Your task to perform on an android device: open app "Google Maps" Image 0: 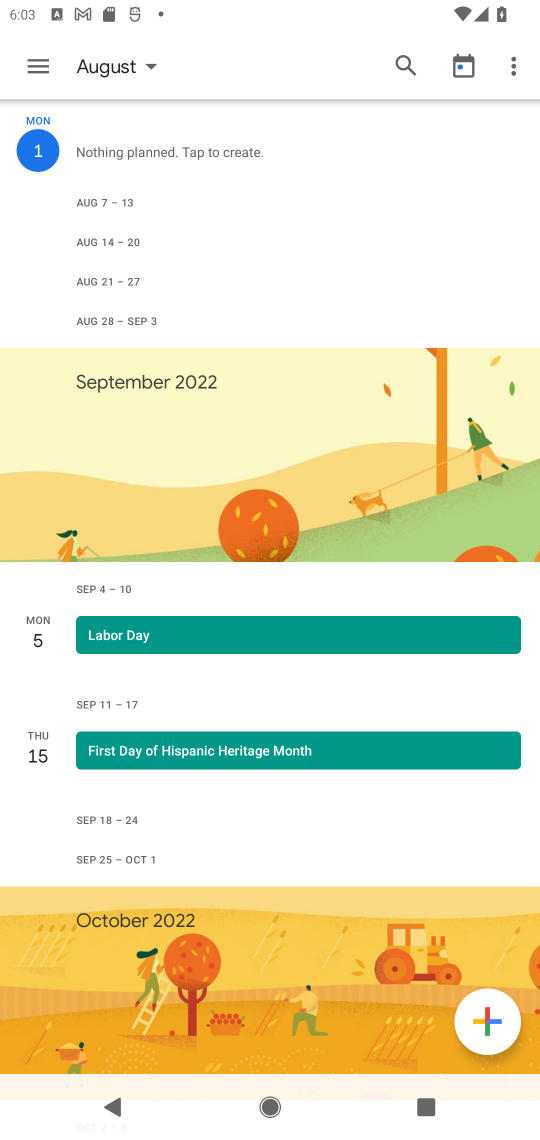
Step 0: press home button
Your task to perform on an android device: open app "Google Maps" Image 1: 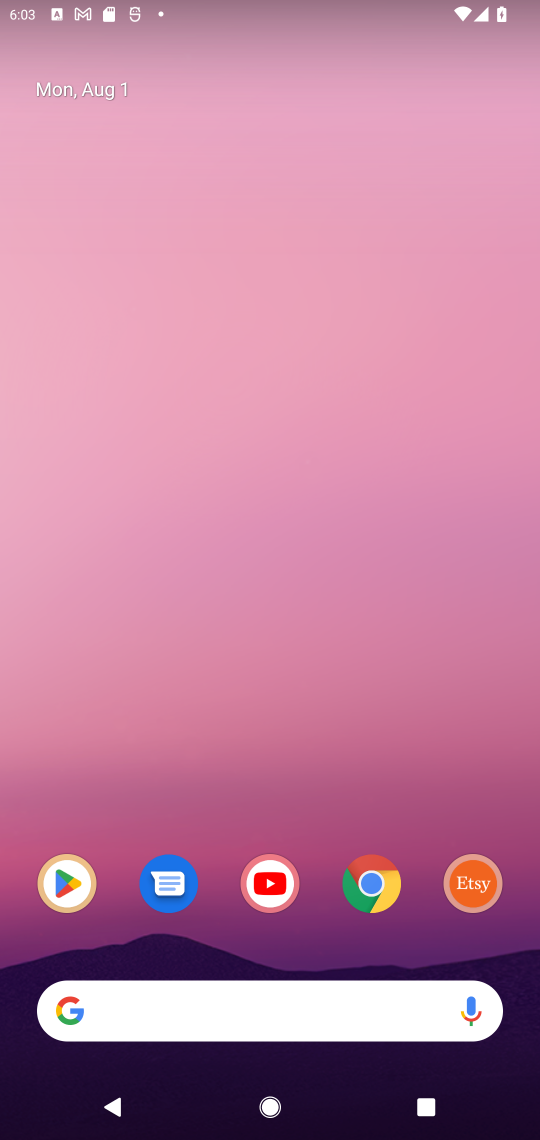
Step 1: drag from (233, 814) to (212, 497)
Your task to perform on an android device: open app "Google Maps" Image 2: 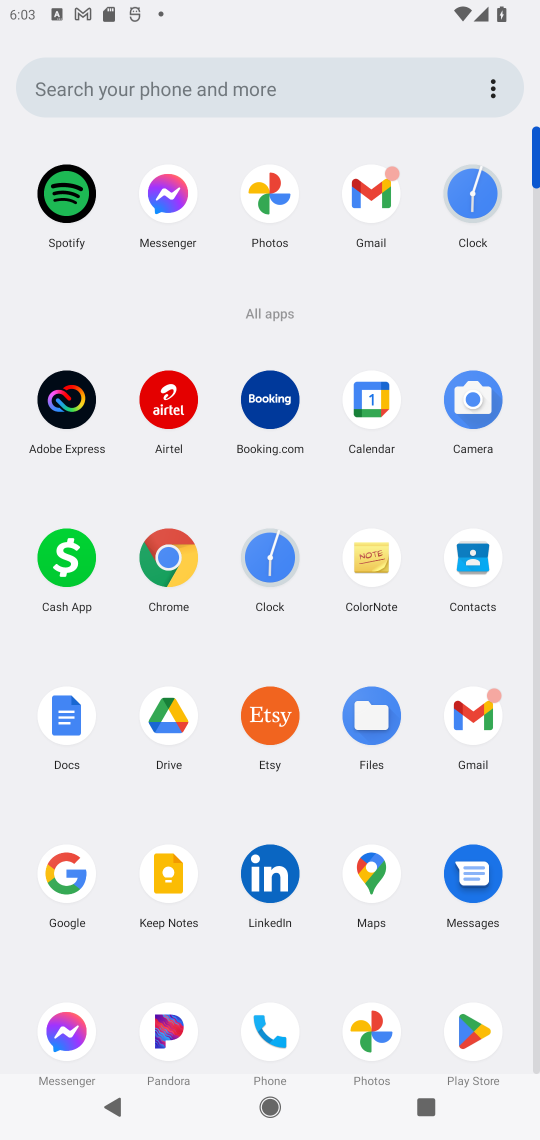
Step 2: click (383, 893)
Your task to perform on an android device: open app "Google Maps" Image 3: 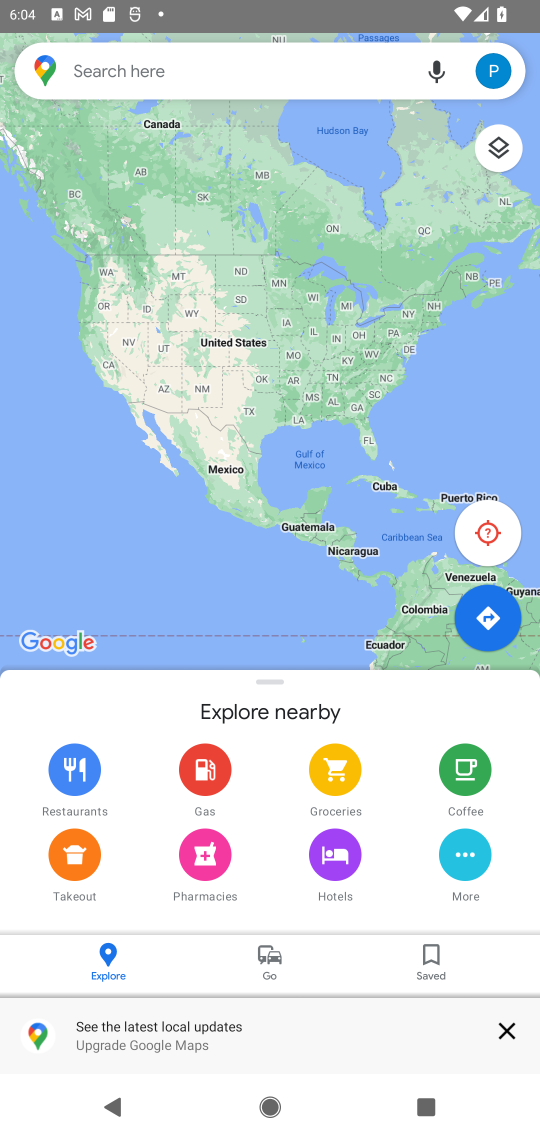
Step 3: task complete